Your task to perform on an android device: turn off location Image 0: 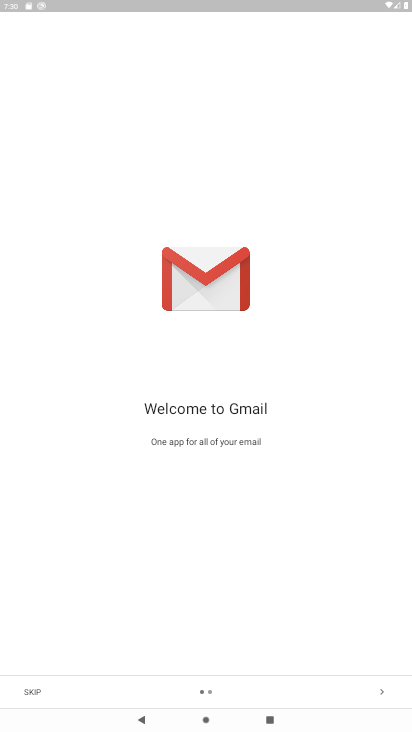
Step 0: press home button
Your task to perform on an android device: turn off location Image 1: 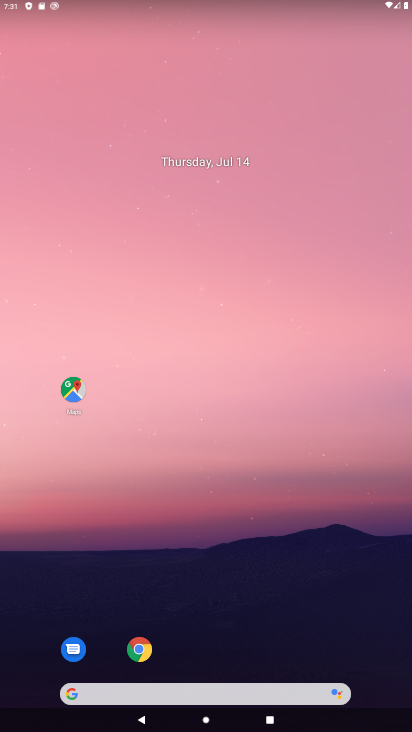
Step 1: drag from (125, 498) to (249, 8)
Your task to perform on an android device: turn off location Image 2: 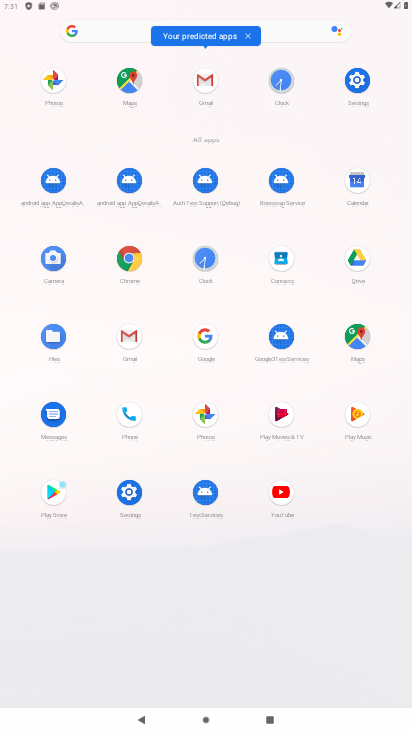
Step 2: click (356, 83)
Your task to perform on an android device: turn off location Image 3: 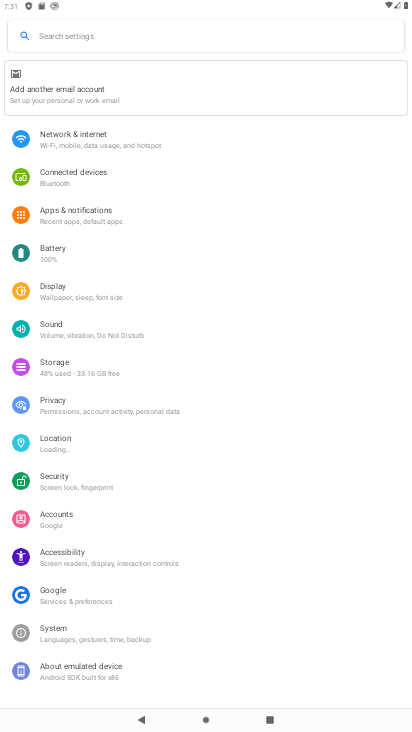
Step 3: click (69, 386)
Your task to perform on an android device: turn off location Image 4: 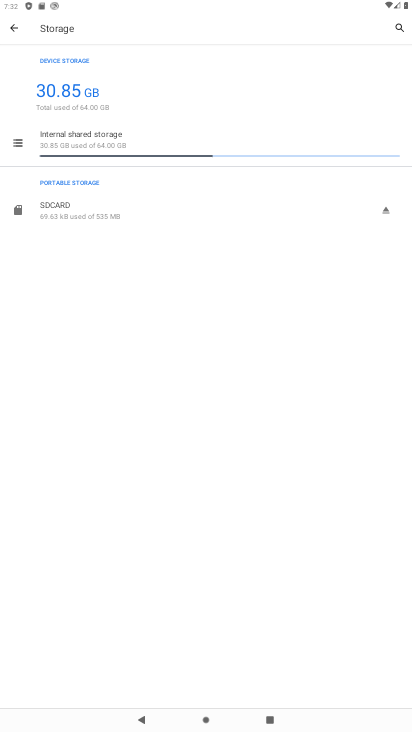
Step 4: click (12, 31)
Your task to perform on an android device: turn off location Image 5: 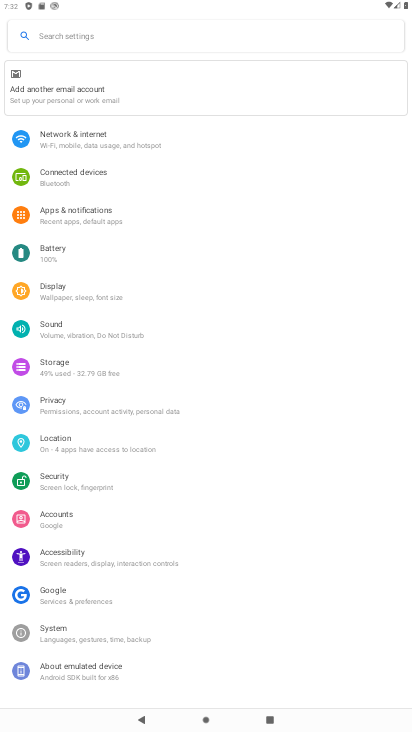
Step 5: click (105, 438)
Your task to perform on an android device: turn off location Image 6: 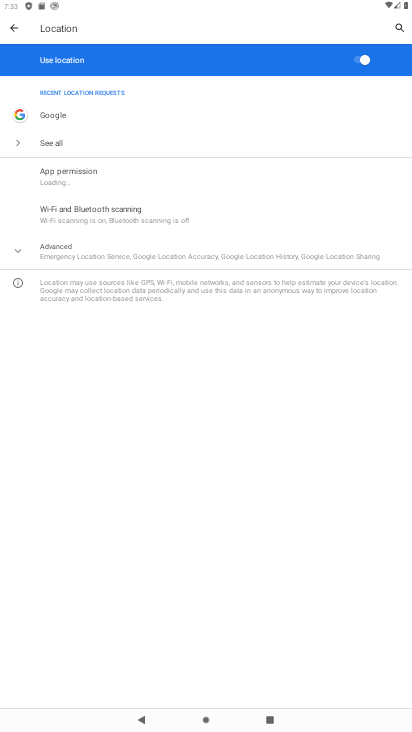
Step 6: click (359, 58)
Your task to perform on an android device: turn off location Image 7: 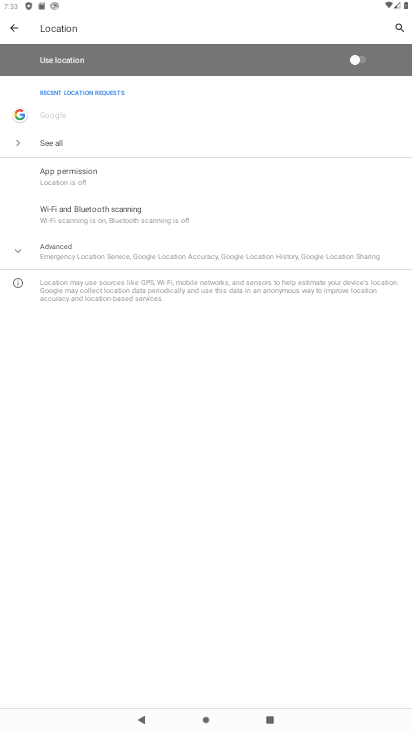
Step 7: task complete